Your task to perform on an android device: Open Chrome and go to settings Image 0: 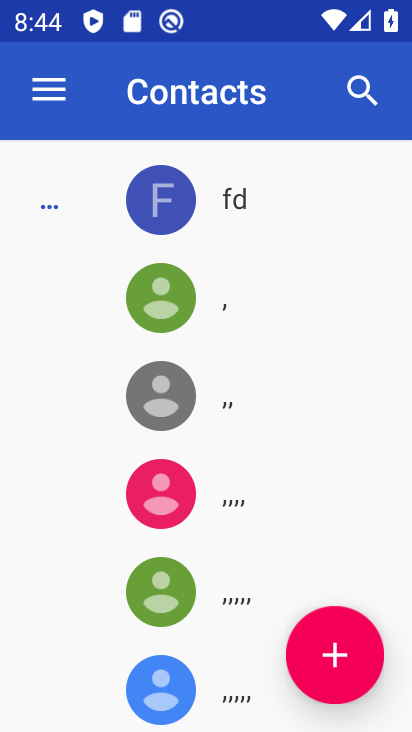
Step 0: press home button
Your task to perform on an android device: Open Chrome and go to settings Image 1: 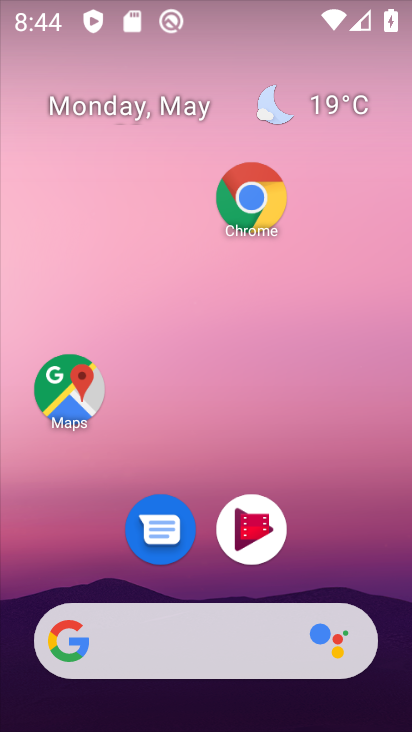
Step 1: click (255, 214)
Your task to perform on an android device: Open Chrome and go to settings Image 2: 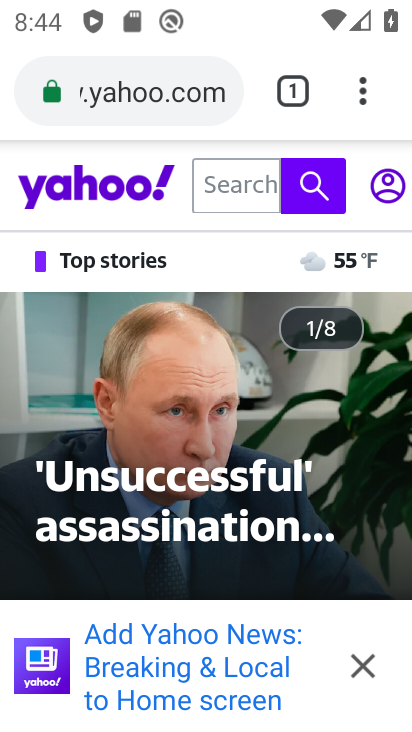
Step 2: click (364, 99)
Your task to perform on an android device: Open Chrome and go to settings Image 3: 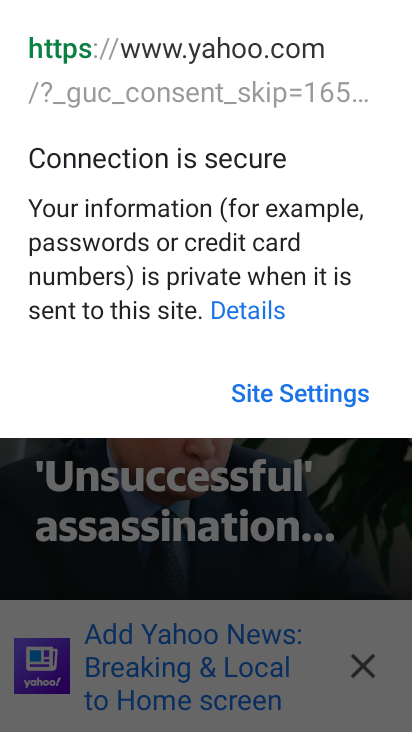
Step 3: click (184, 477)
Your task to perform on an android device: Open Chrome and go to settings Image 4: 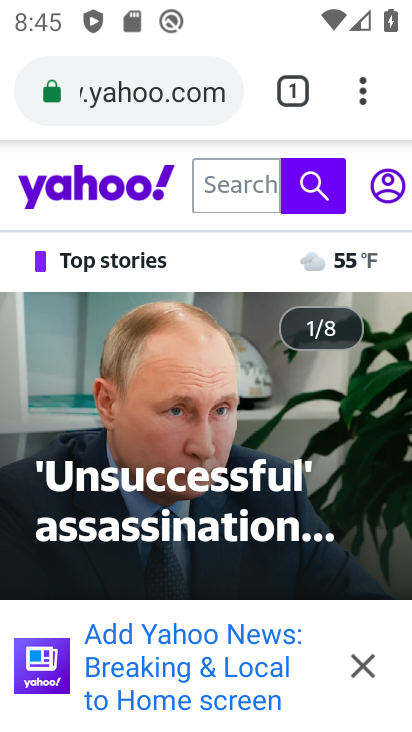
Step 4: click (368, 91)
Your task to perform on an android device: Open Chrome and go to settings Image 5: 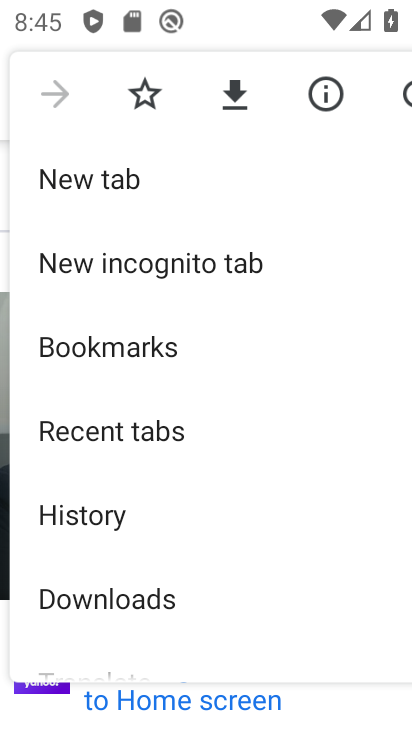
Step 5: drag from (103, 538) to (102, 224)
Your task to perform on an android device: Open Chrome and go to settings Image 6: 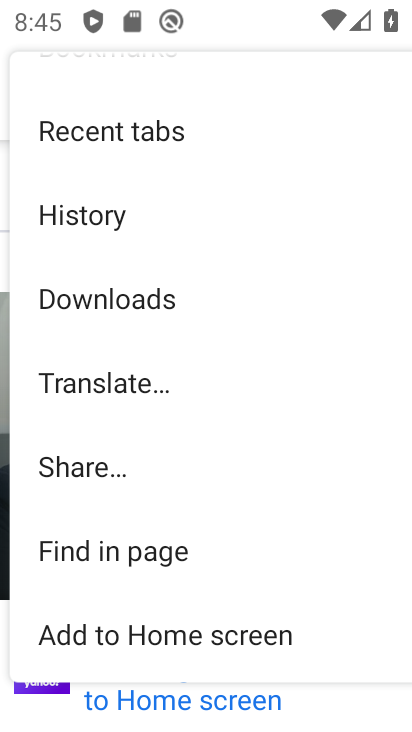
Step 6: drag from (104, 592) to (108, 248)
Your task to perform on an android device: Open Chrome and go to settings Image 7: 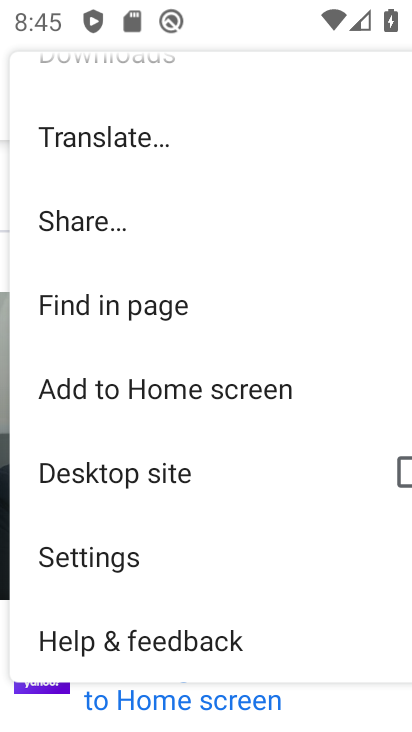
Step 7: click (113, 556)
Your task to perform on an android device: Open Chrome and go to settings Image 8: 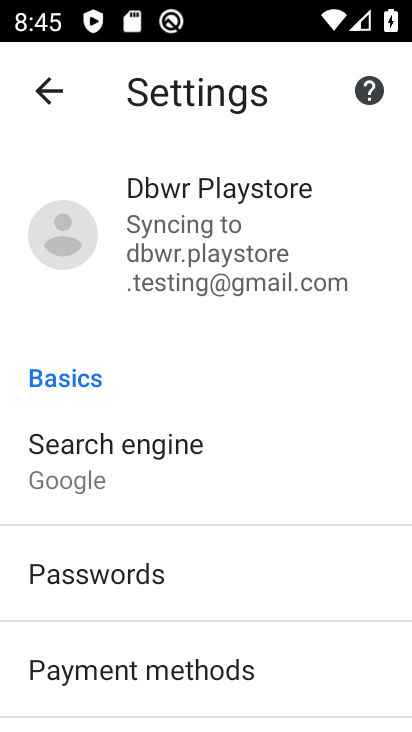
Step 8: task complete